Your task to perform on an android device: turn on notifications settings in the gmail app Image 0: 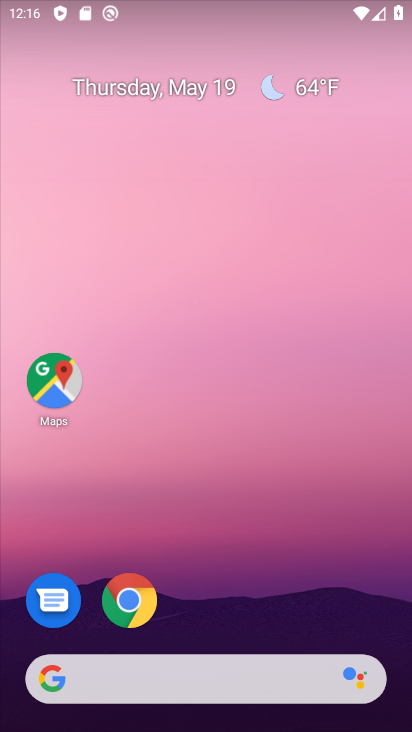
Step 0: drag from (185, 647) to (108, 17)
Your task to perform on an android device: turn on notifications settings in the gmail app Image 1: 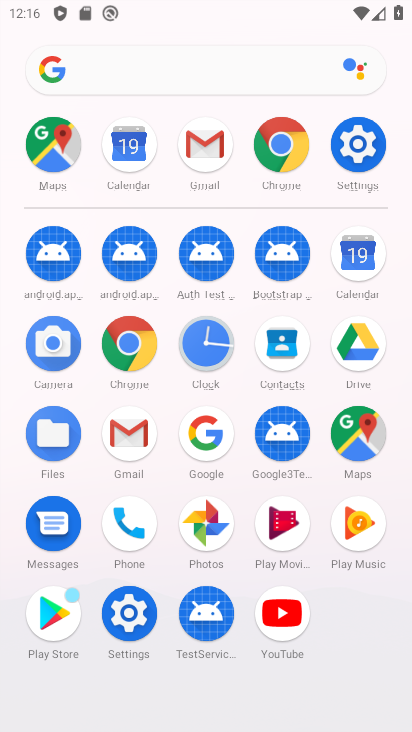
Step 1: click (112, 428)
Your task to perform on an android device: turn on notifications settings in the gmail app Image 2: 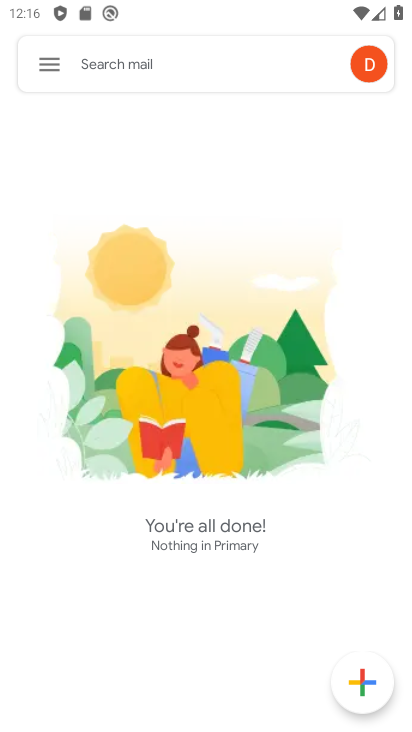
Step 2: click (46, 69)
Your task to perform on an android device: turn on notifications settings in the gmail app Image 3: 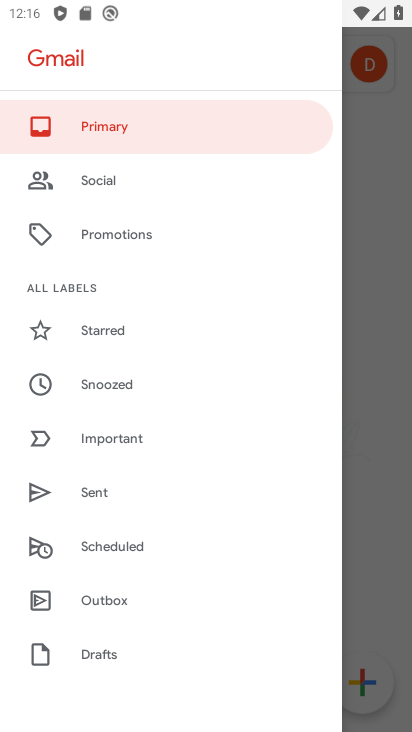
Step 3: drag from (119, 582) to (32, 78)
Your task to perform on an android device: turn on notifications settings in the gmail app Image 4: 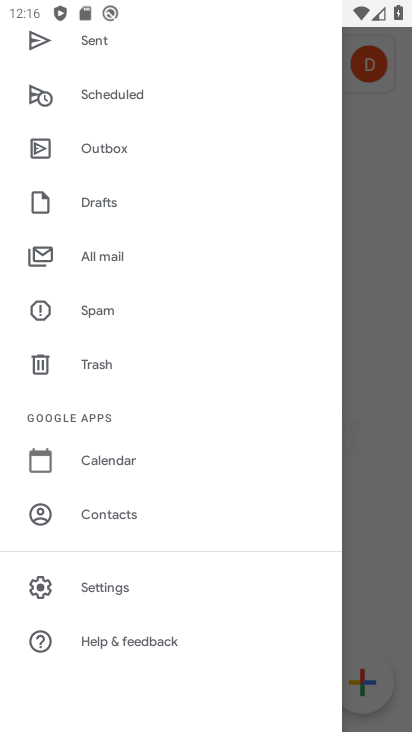
Step 4: click (90, 582)
Your task to perform on an android device: turn on notifications settings in the gmail app Image 5: 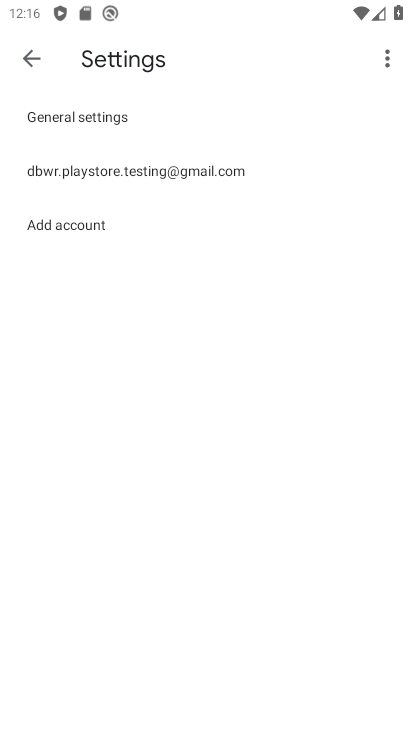
Step 5: click (61, 120)
Your task to perform on an android device: turn on notifications settings in the gmail app Image 6: 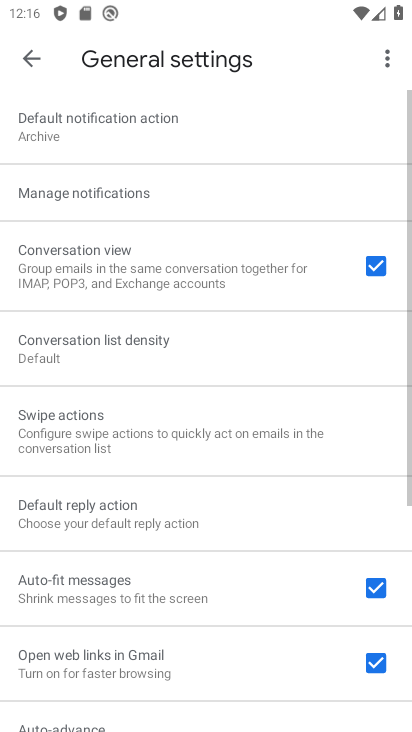
Step 6: click (69, 203)
Your task to perform on an android device: turn on notifications settings in the gmail app Image 7: 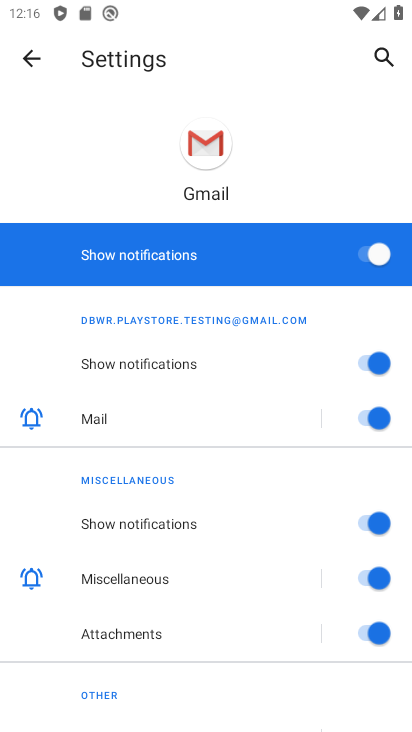
Step 7: task complete